Your task to perform on an android device: turn on priority inbox in the gmail app Image 0: 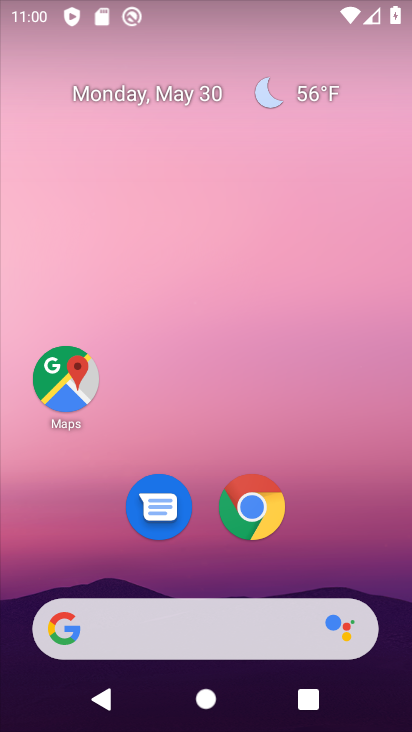
Step 0: drag from (145, 728) to (211, 139)
Your task to perform on an android device: turn on priority inbox in the gmail app Image 1: 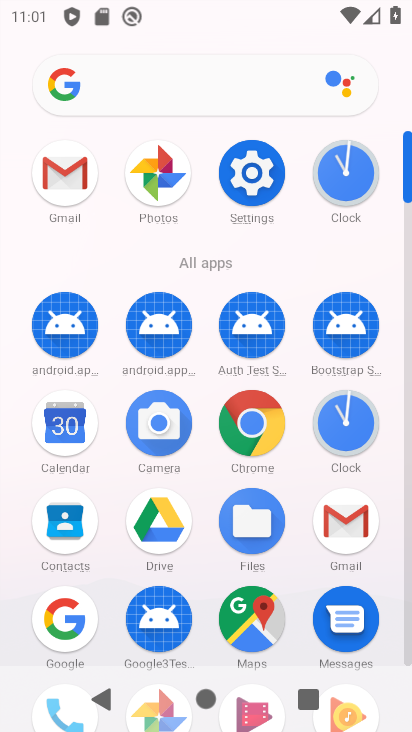
Step 1: click (77, 199)
Your task to perform on an android device: turn on priority inbox in the gmail app Image 2: 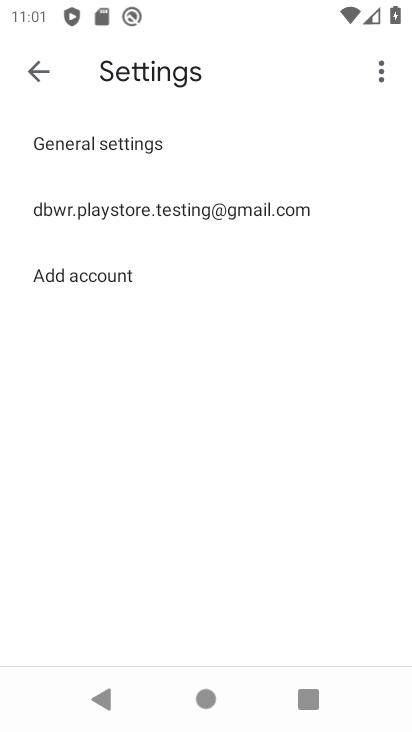
Step 2: click (99, 216)
Your task to perform on an android device: turn on priority inbox in the gmail app Image 3: 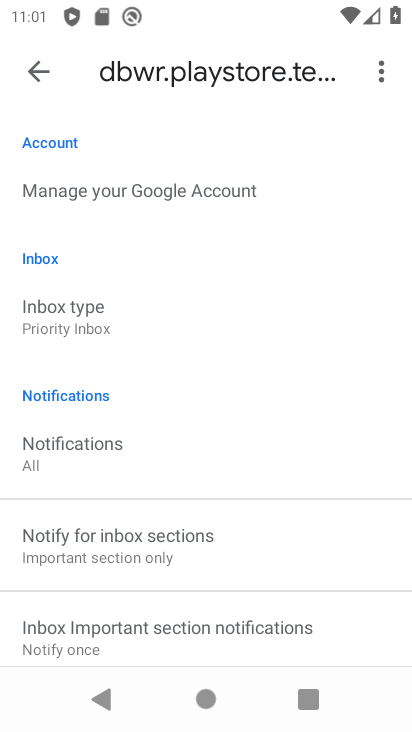
Step 3: click (79, 324)
Your task to perform on an android device: turn on priority inbox in the gmail app Image 4: 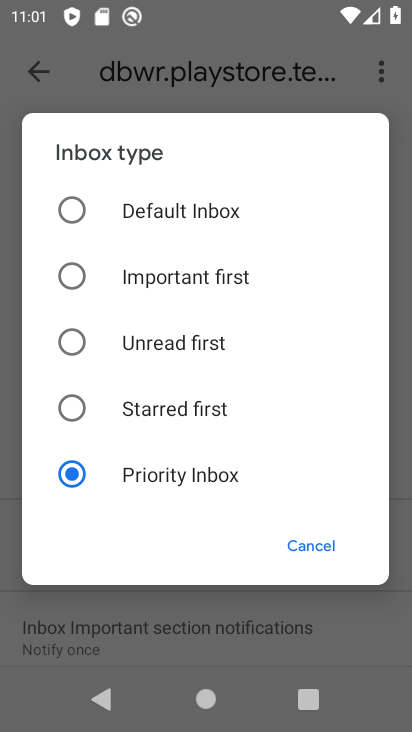
Step 4: task complete